Your task to perform on an android device: clear history in the chrome app Image 0: 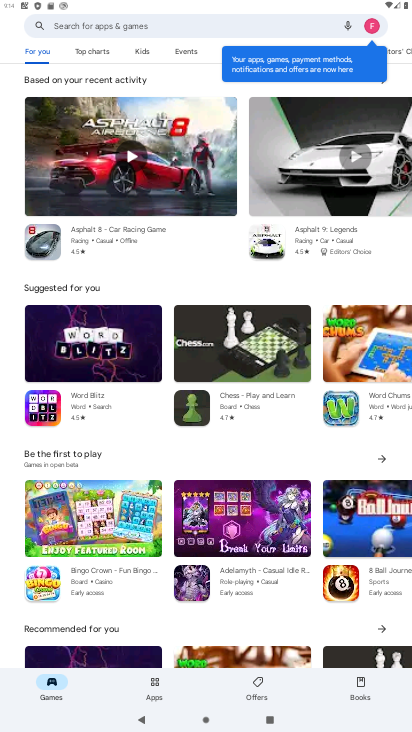
Step 0: press home button
Your task to perform on an android device: clear history in the chrome app Image 1: 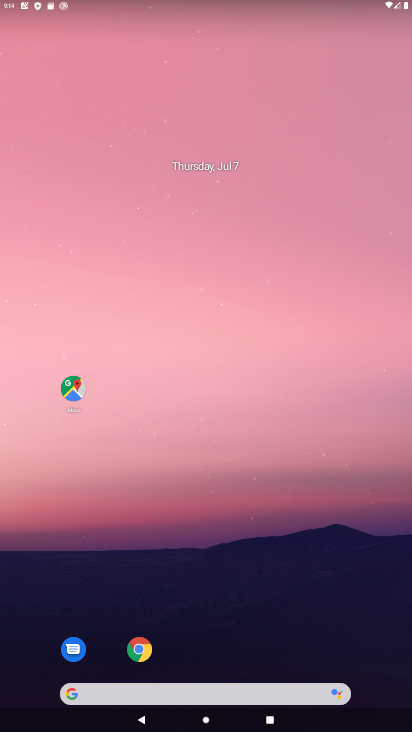
Step 1: click (141, 652)
Your task to perform on an android device: clear history in the chrome app Image 2: 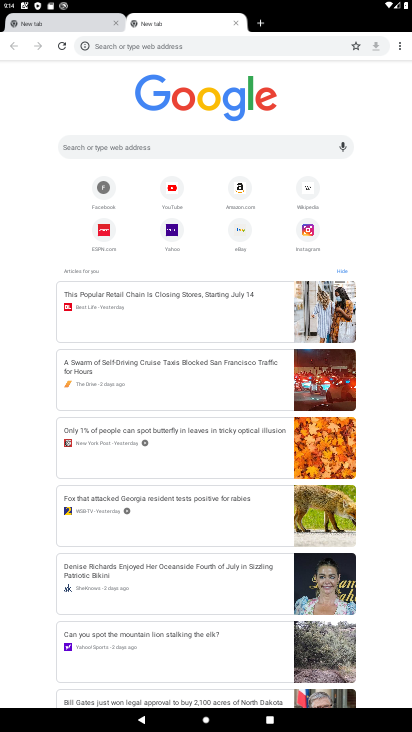
Step 2: click (399, 46)
Your task to perform on an android device: clear history in the chrome app Image 3: 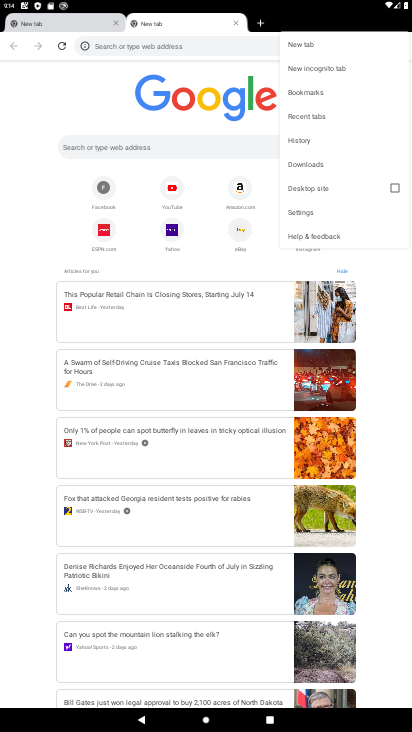
Step 3: click (306, 140)
Your task to perform on an android device: clear history in the chrome app Image 4: 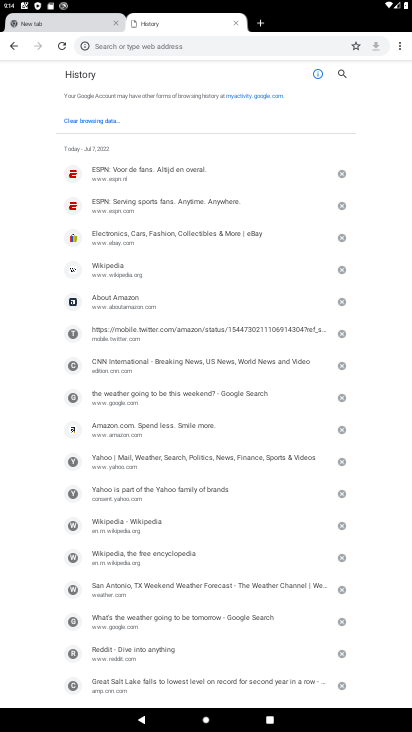
Step 4: click (100, 121)
Your task to perform on an android device: clear history in the chrome app Image 5: 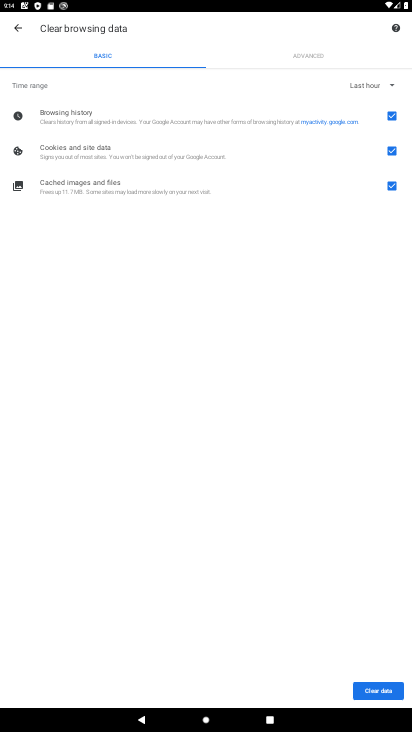
Step 5: click (380, 686)
Your task to perform on an android device: clear history in the chrome app Image 6: 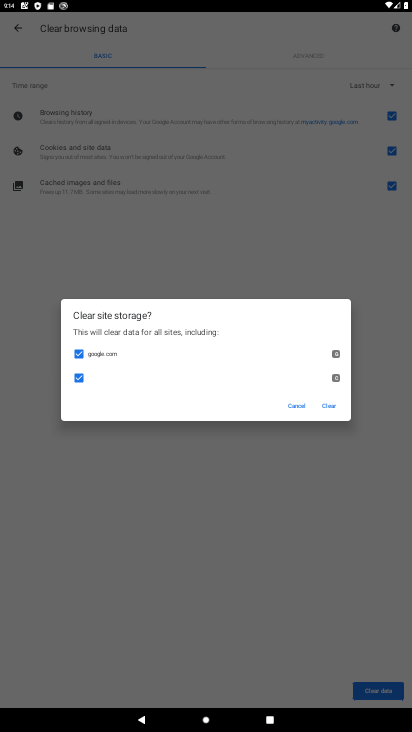
Step 6: click (331, 404)
Your task to perform on an android device: clear history in the chrome app Image 7: 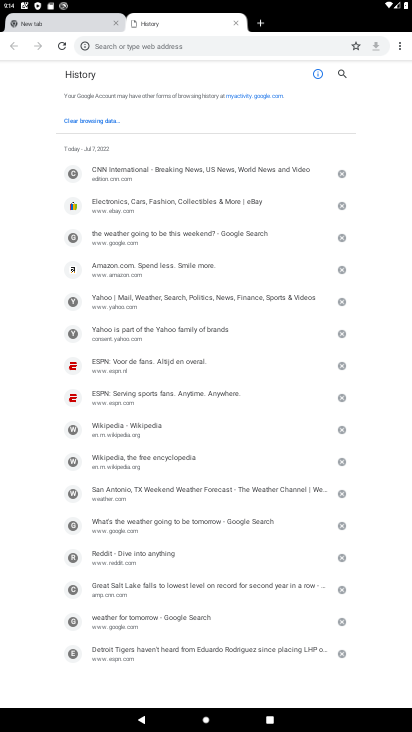
Step 7: click (80, 118)
Your task to perform on an android device: clear history in the chrome app Image 8: 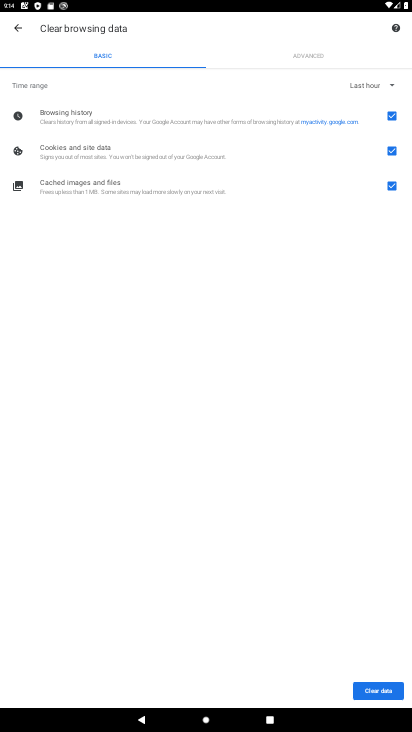
Step 8: click (390, 86)
Your task to perform on an android device: clear history in the chrome app Image 9: 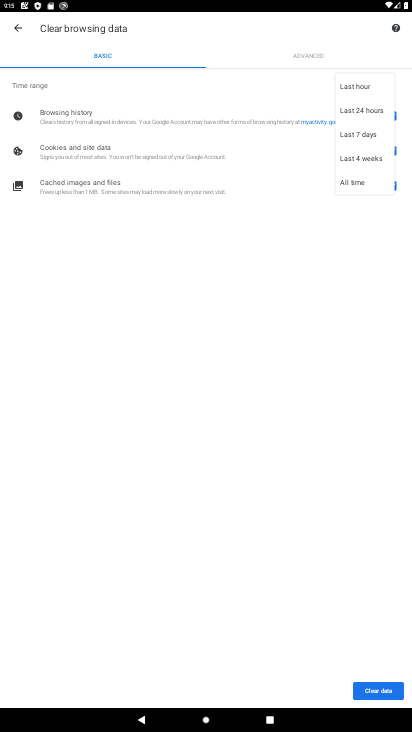
Step 9: click (349, 175)
Your task to perform on an android device: clear history in the chrome app Image 10: 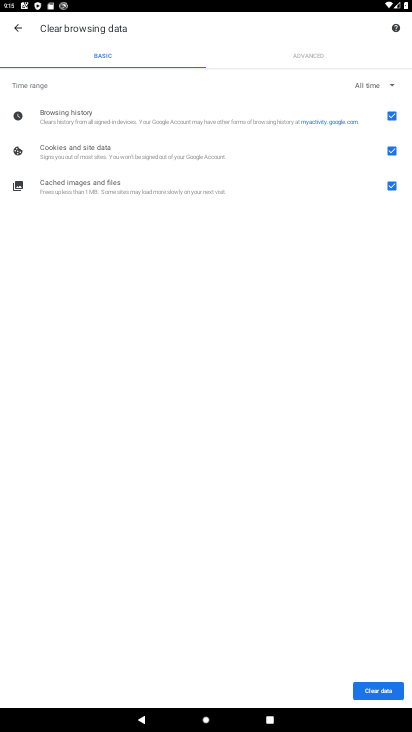
Step 10: click (369, 688)
Your task to perform on an android device: clear history in the chrome app Image 11: 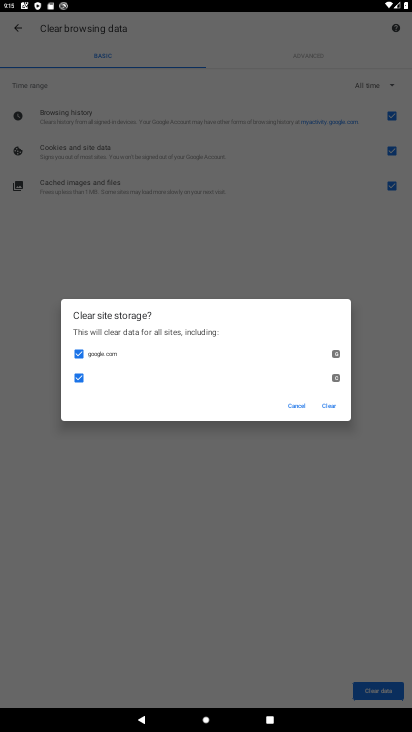
Step 11: click (328, 402)
Your task to perform on an android device: clear history in the chrome app Image 12: 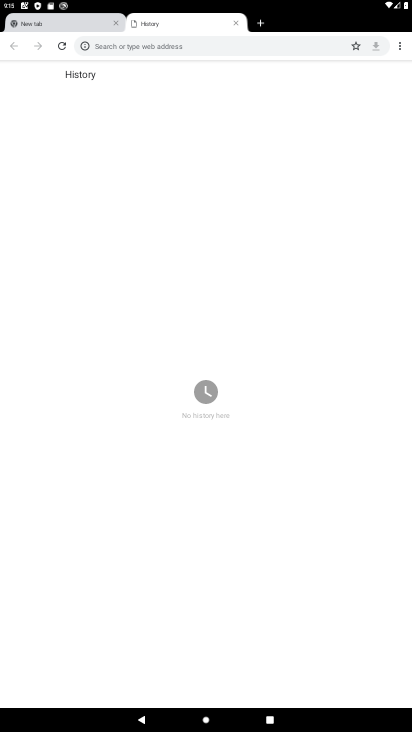
Step 12: task complete